Your task to perform on an android device: choose inbox layout in the gmail app Image 0: 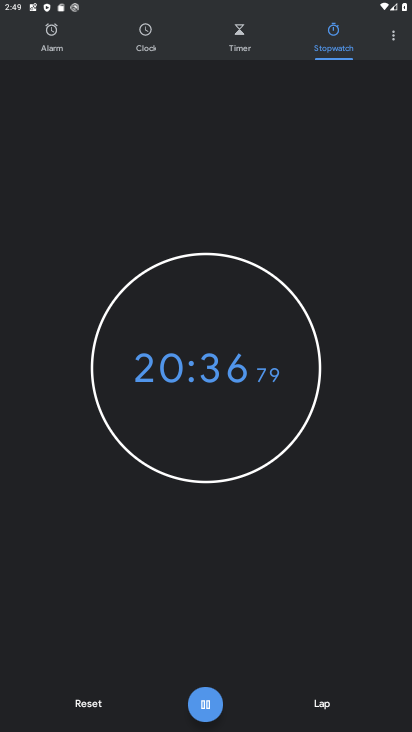
Step 0: press home button
Your task to perform on an android device: choose inbox layout in the gmail app Image 1: 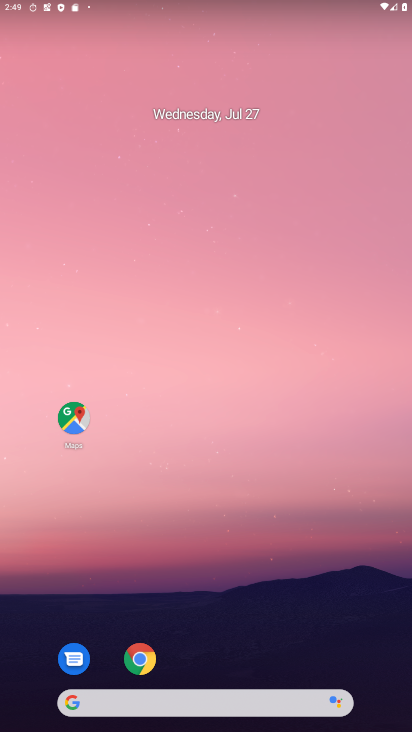
Step 1: drag from (222, 712) to (141, 62)
Your task to perform on an android device: choose inbox layout in the gmail app Image 2: 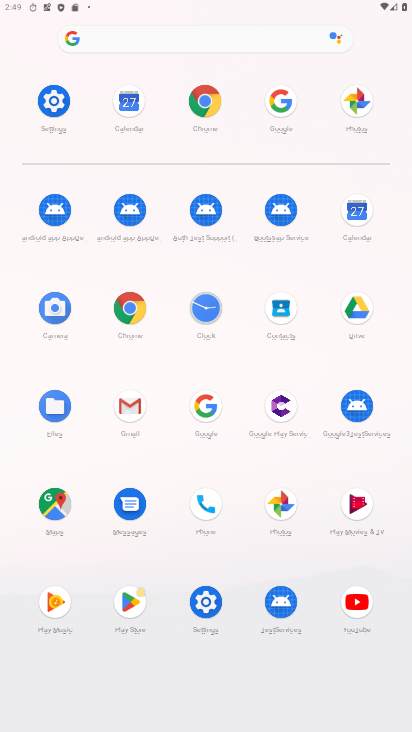
Step 2: click (128, 400)
Your task to perform on an android device: choose inbox layout in the gmail app Image 3: 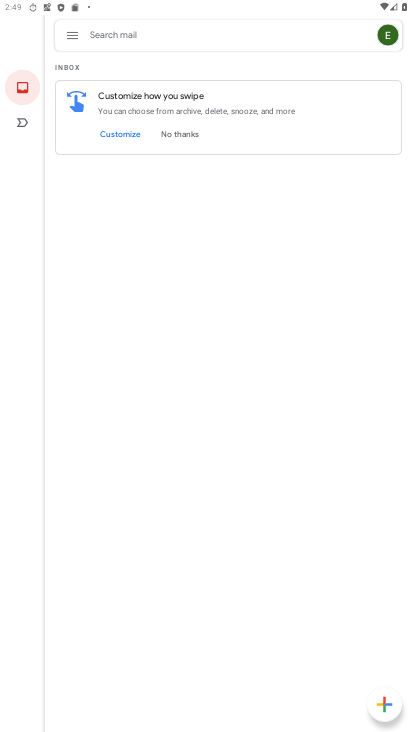
Step 3: click (70, 37)
Your task to perform on an android device: choose inbox layout in the gmail app Image 4: 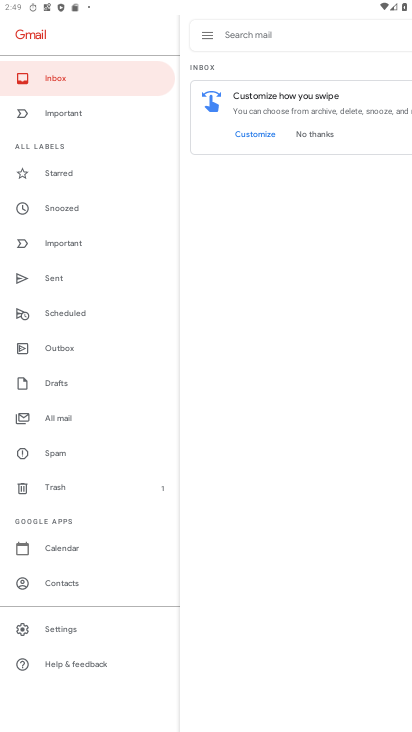
Step 4: click (61, 627)
Your task to perform on an android device: choose inbox layout in the gmail app Image 5: 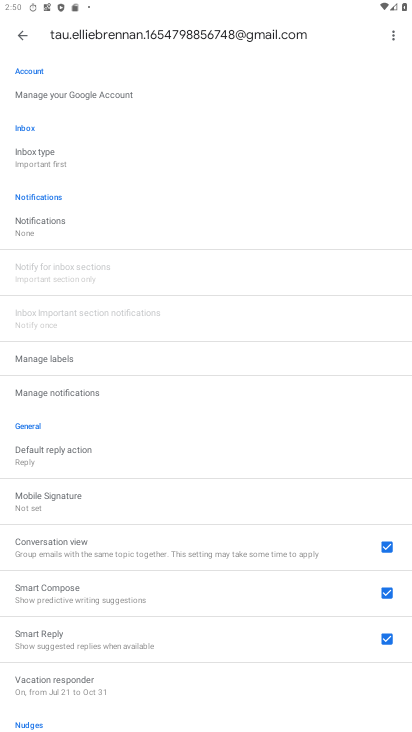
Step 5: click (37, 162)
Your task to perform on an android device: choose inbox layout in the gmail app Image 6: 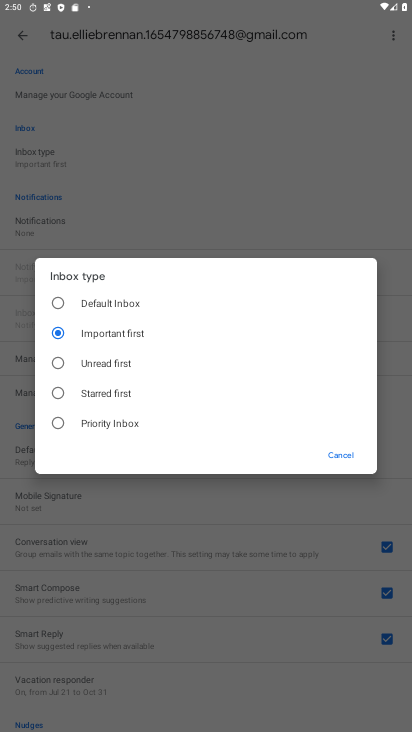
Step 6: click (55, 421)
Your task to perform on an android device: choose inbox layout in the gmail app Image 7: 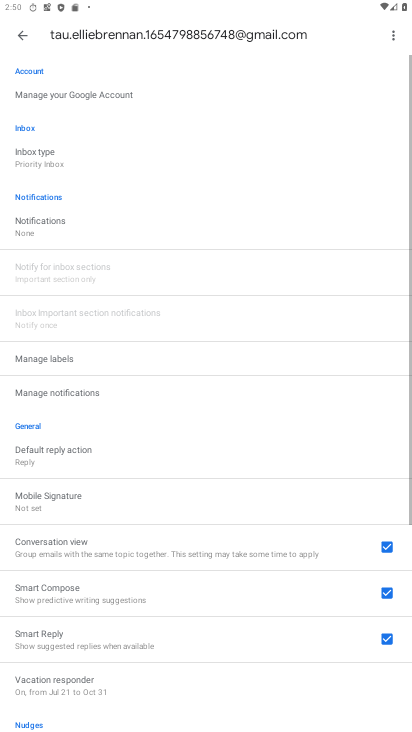
Step 7: task complete